Your task to perform on an android device: Turn off the flashlight Image 0: 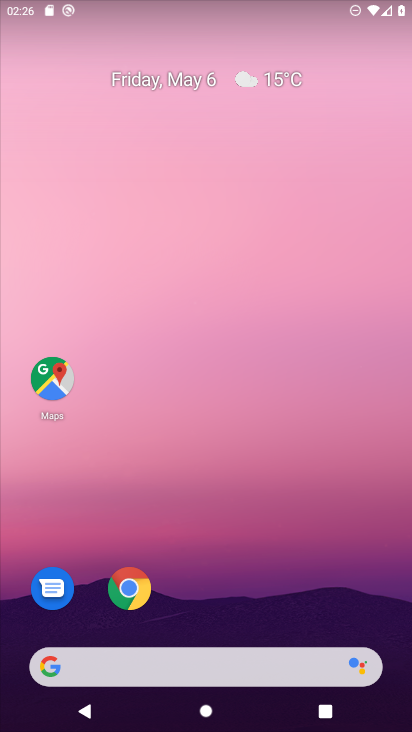
Step 0: drag from (203, 642) to (46, 63)
Your task to perform on an android device: Turn off the flashlight Image 1: 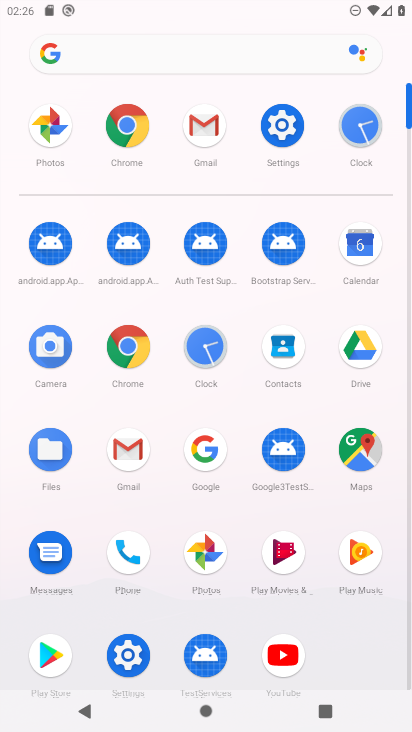
Step 1: task complete